Your task to perform on an android device: open app "Cash App" Image 0: 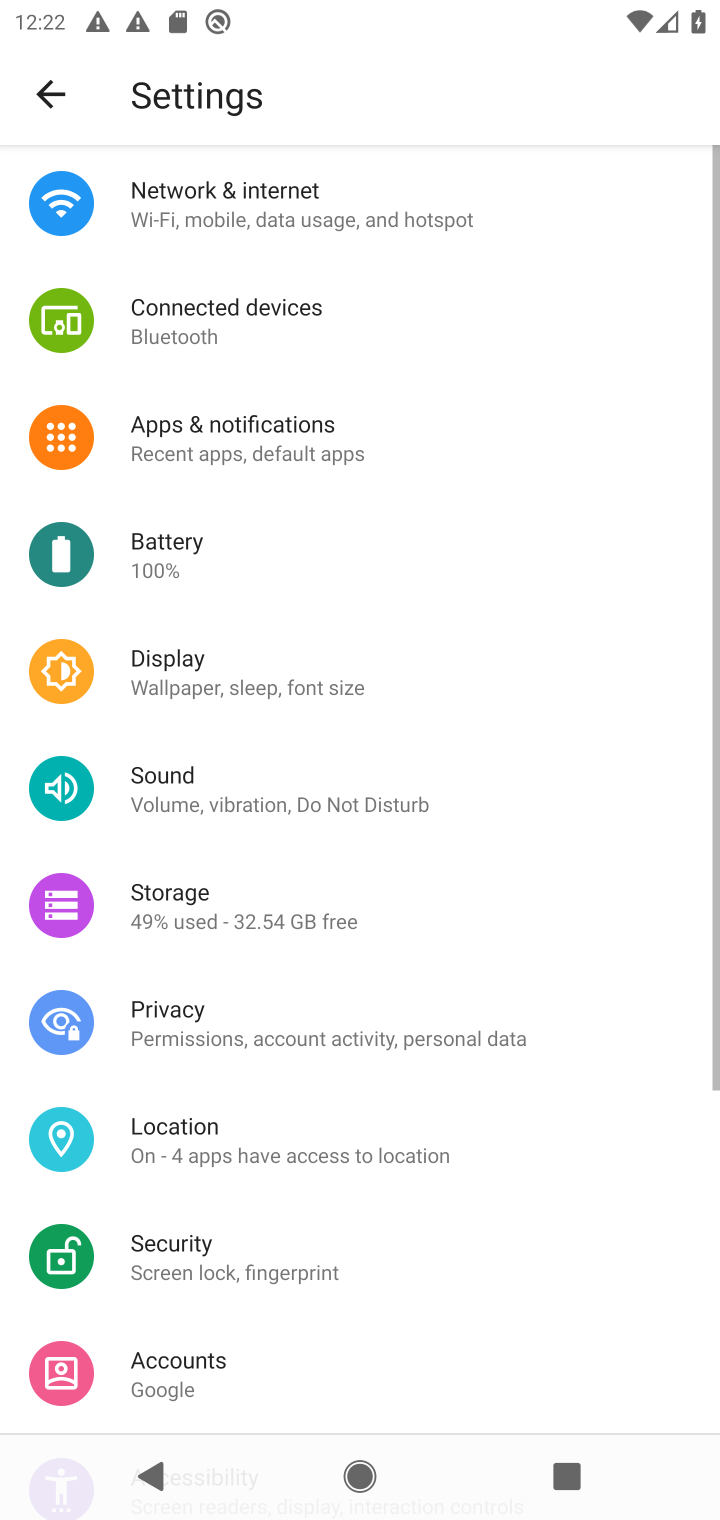
Step 0: press home button
Your task to perform on an android device: open app "Cash App" Image 1: 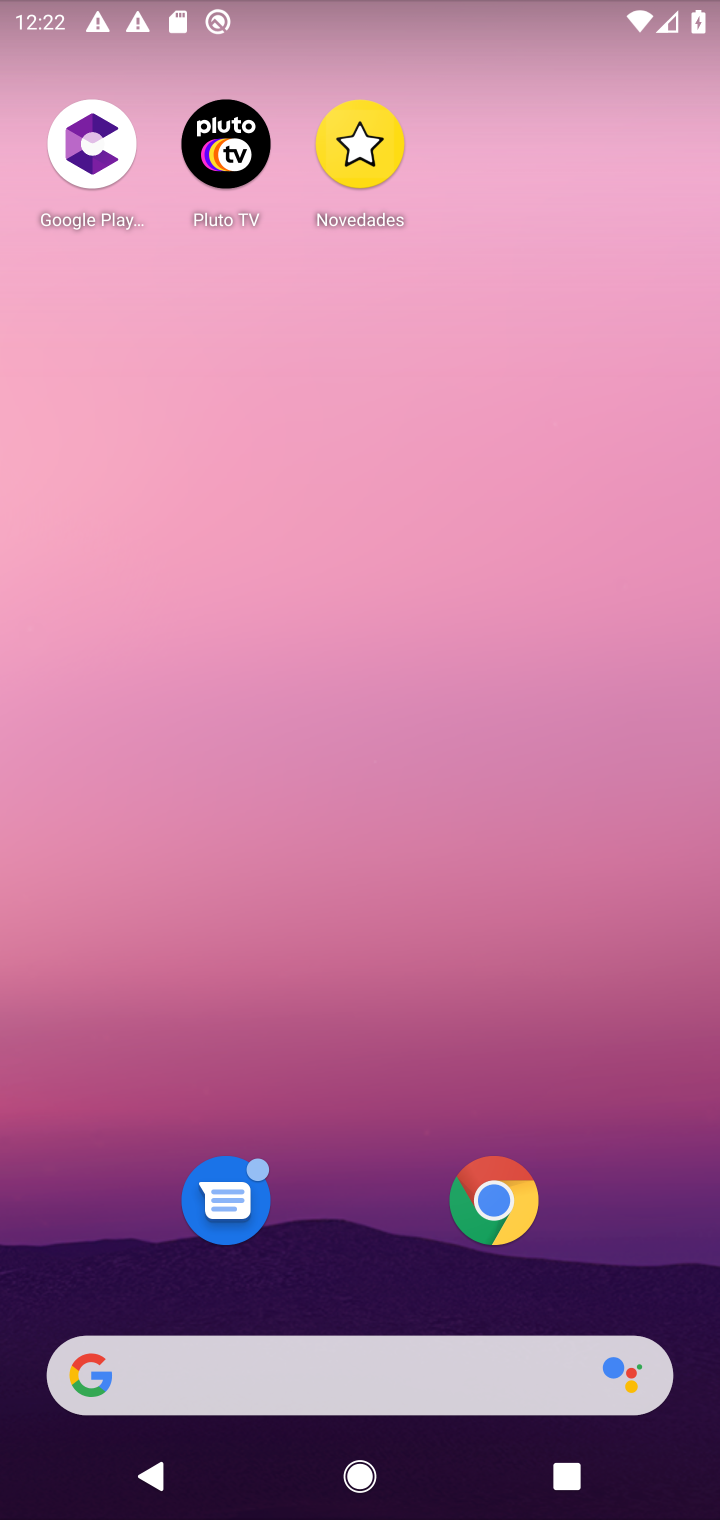
Step 1: press home button
Your task to perform on an android device: open app "Cash App" Image 2: 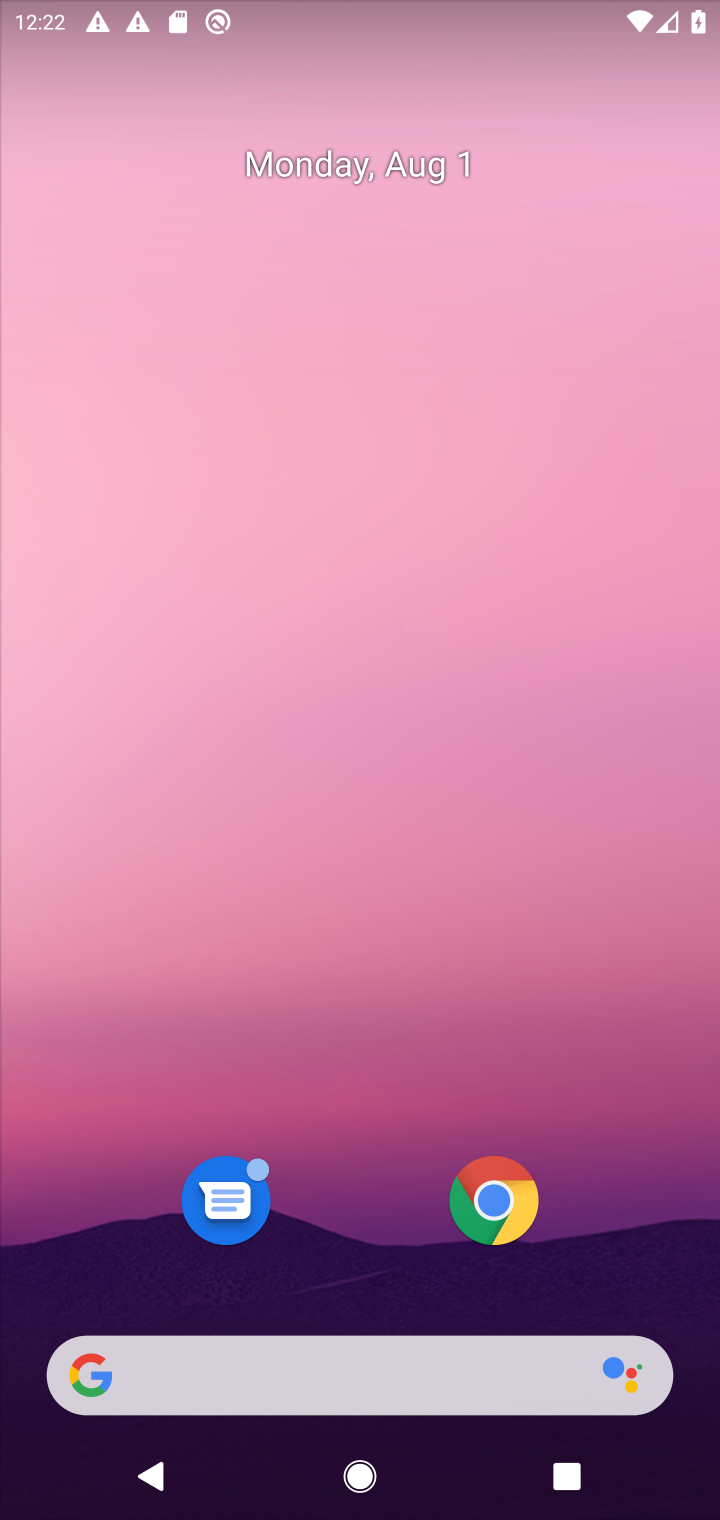
Step 2: drag from (367, 1021) to (413, 210)
Your task to perform on an android device: open app "Cash App" Image 3: 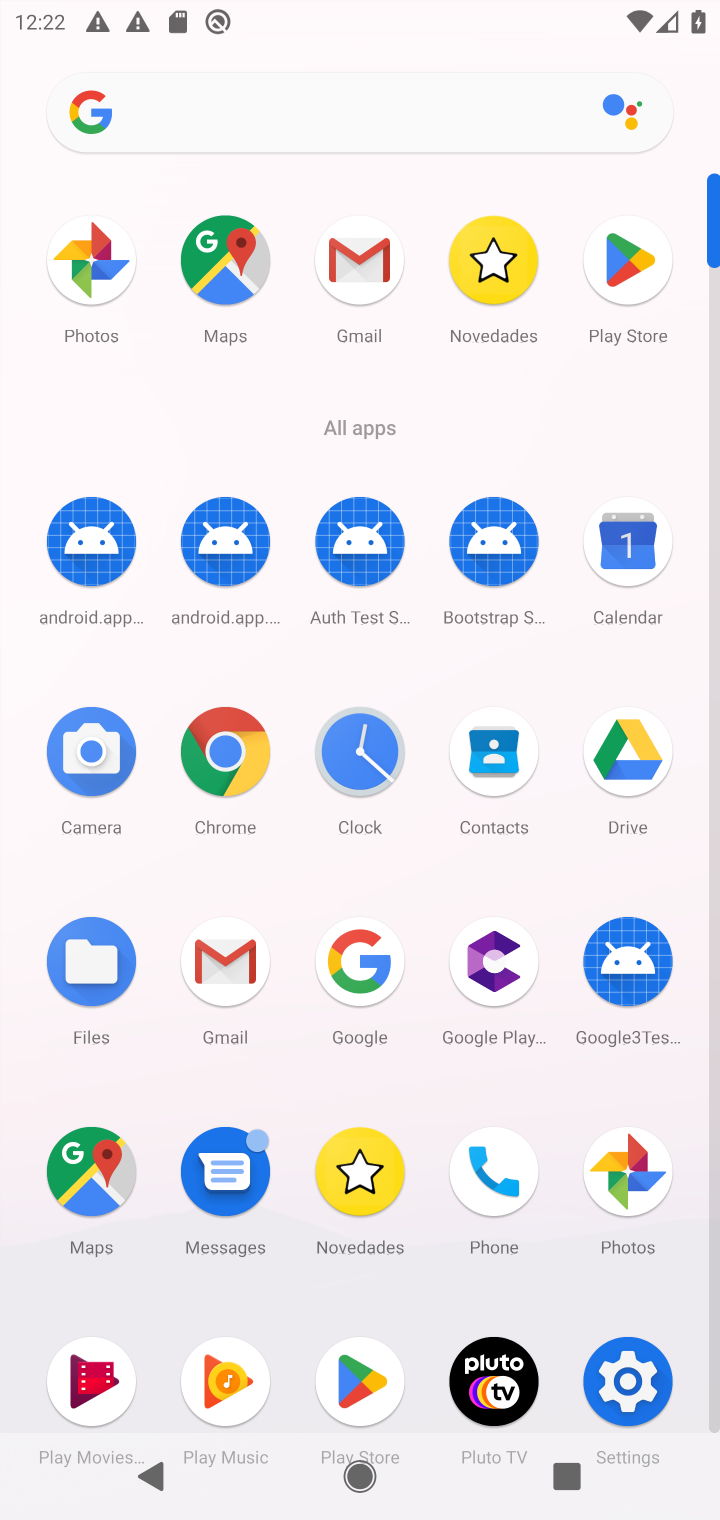
Step 3: click (612, 236)
Your task to perform on an android device: open app "Cash App" Image 4: 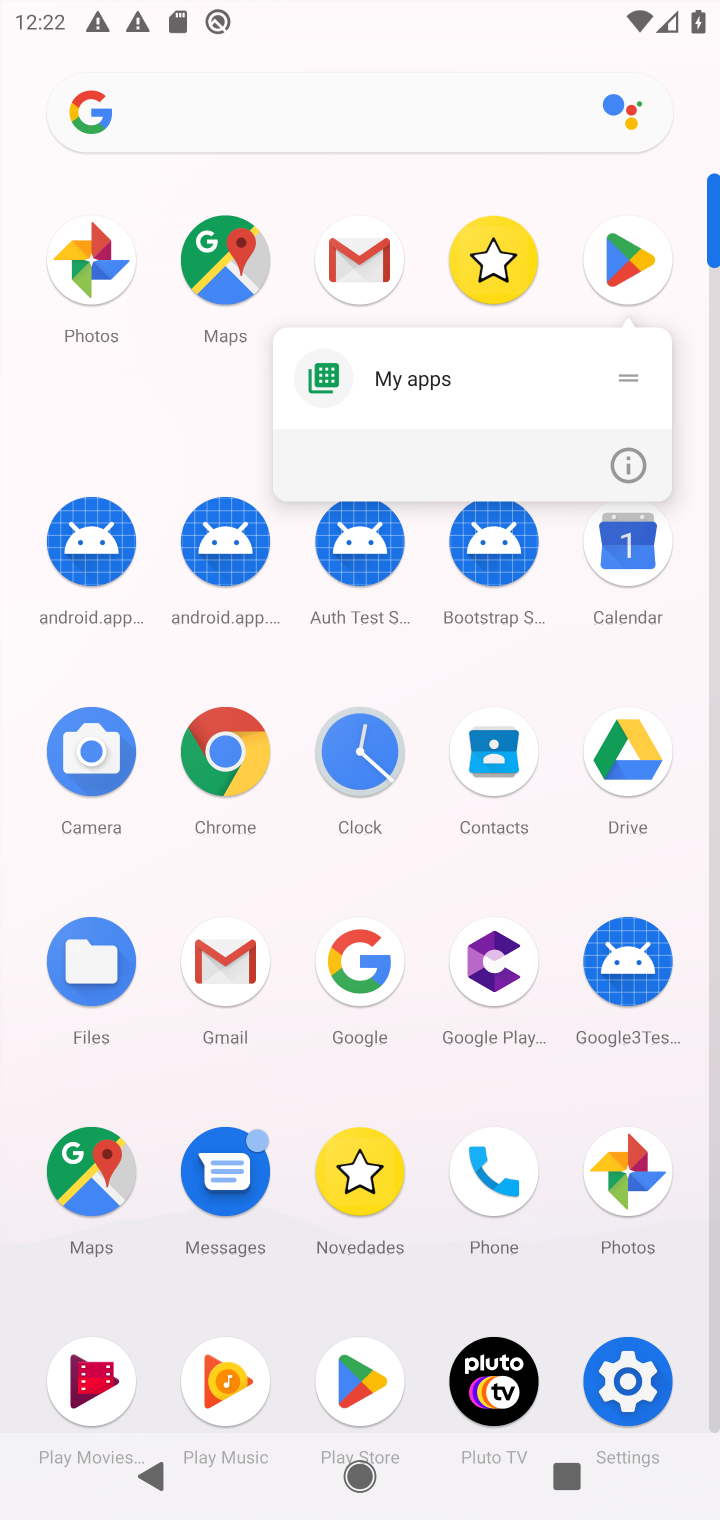
Step 4: click (612, 236)
Your task to perform on an android device: open app "Cash App" Image 5: 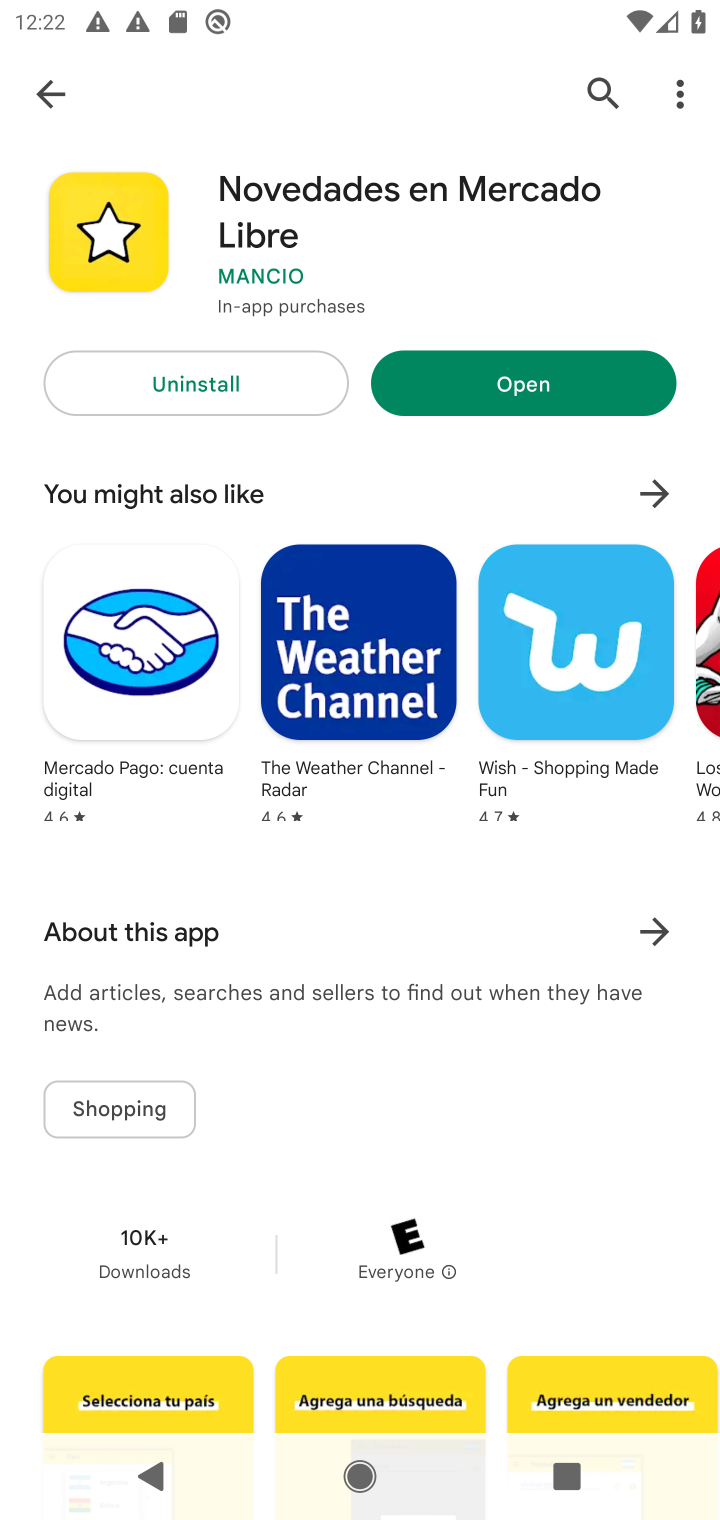
Step 5: click (594, 98)
Your task to perform on an android device: open app "Cash App" Image 6: 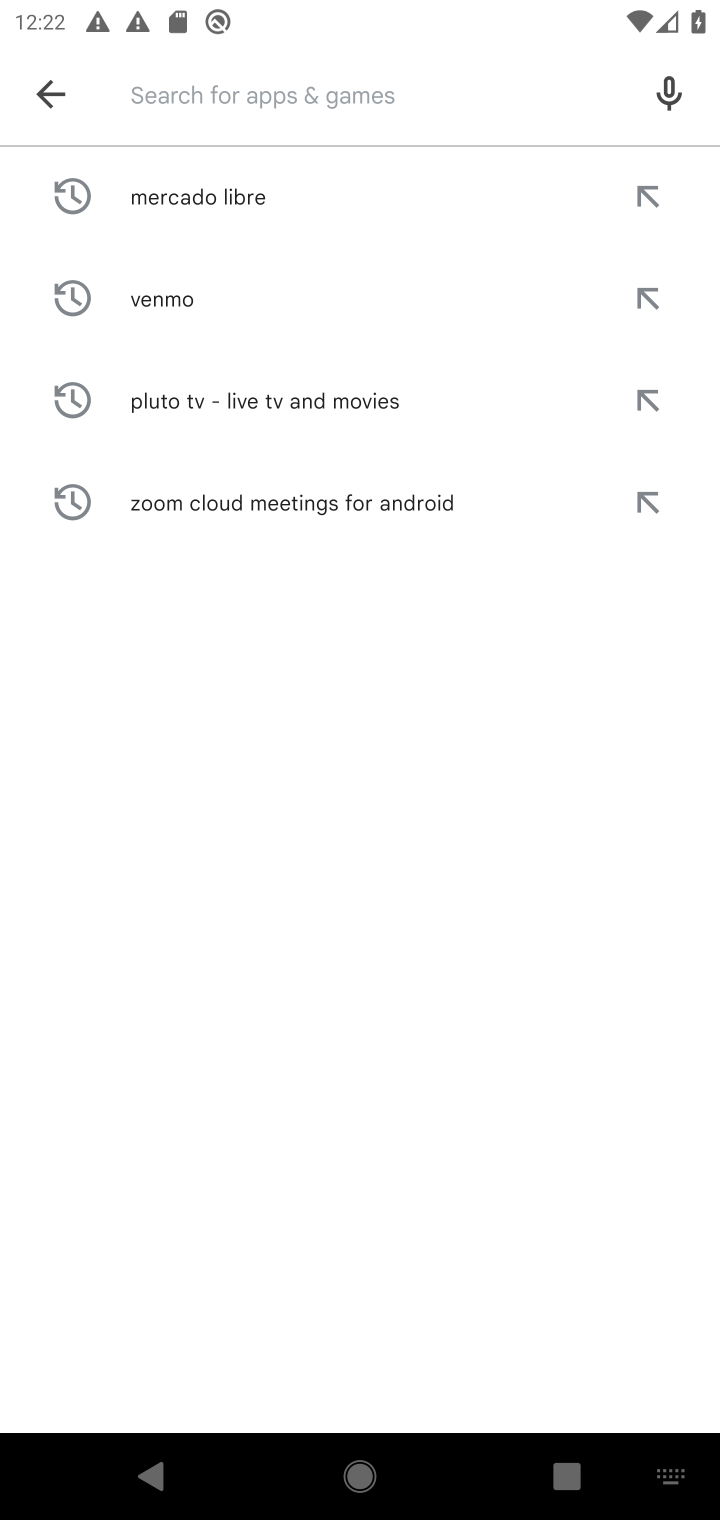
Step 6: type "cash app"
Your task to perform on an android device: open app "Cash App" Image 7: 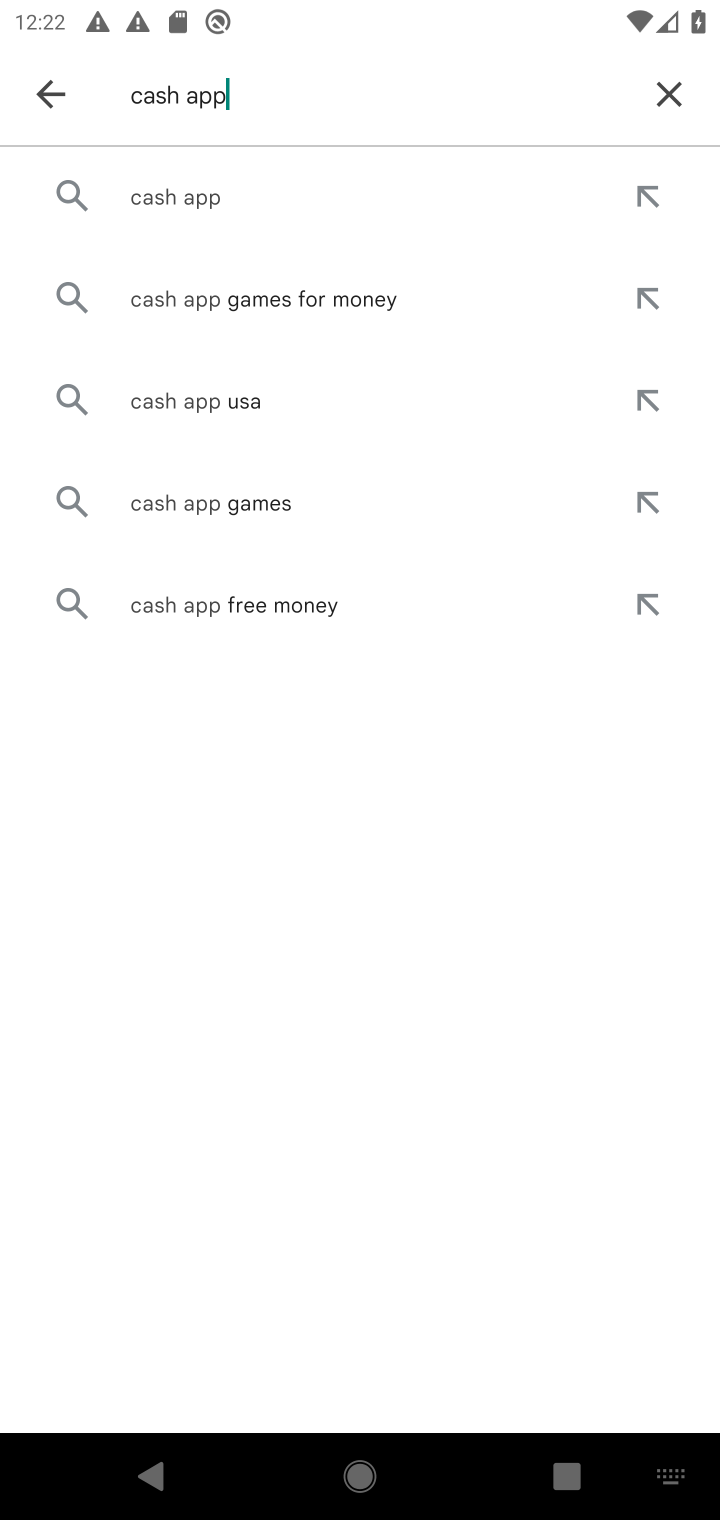
Step 7: click (264, 205)
Your task to perform on an android device: open app "Cash App" Image 8: 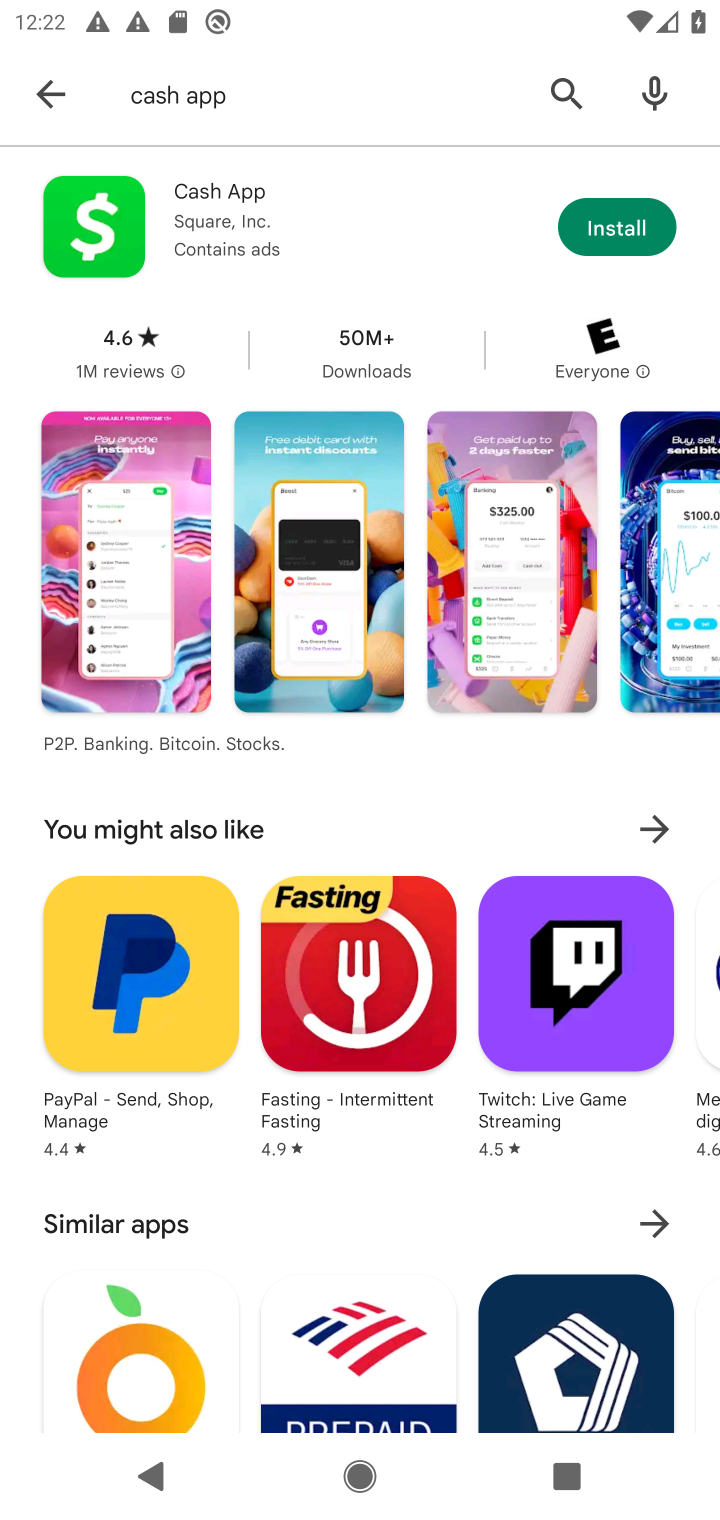
Step 8: click (264, 205)
Your task to perform on an android device: open app "Cash App" Image 9: 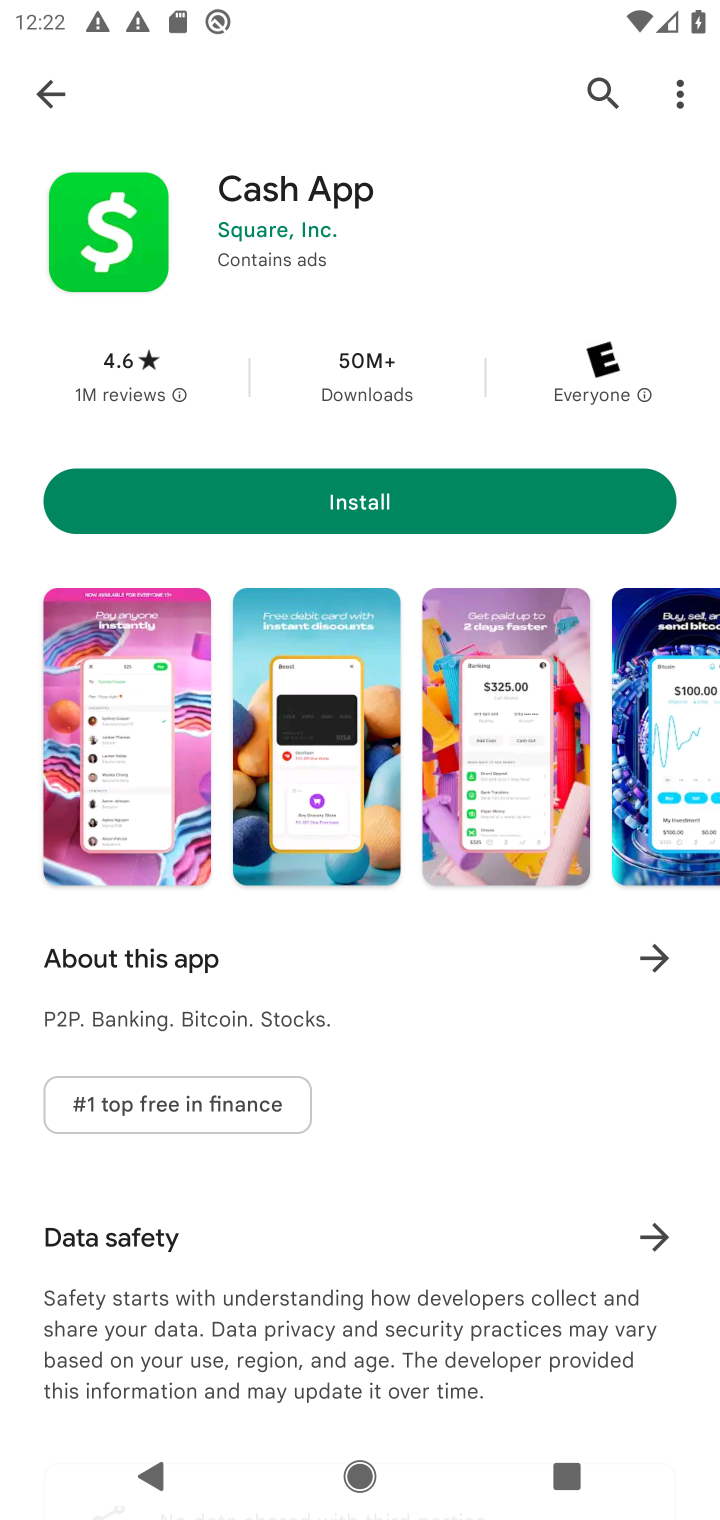
Step 9: task complete